Your task to perform on an android device: turn smart compose on in the gmail app Image 0: 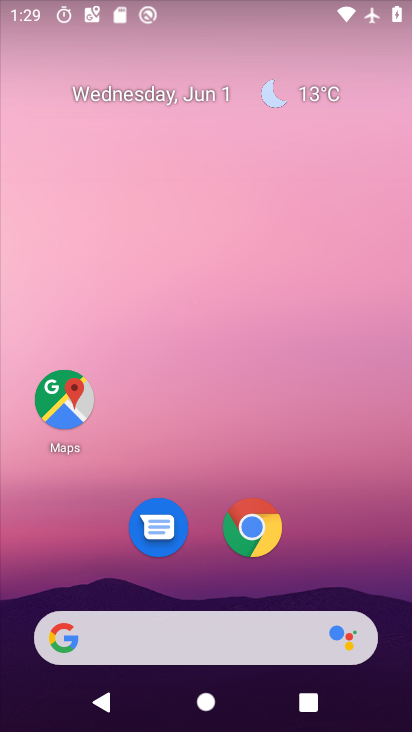
Step 0: drag from (306, 579) to (339, 7)
Your task to perform on an android device: turn smart compose on in the gmail app Image 1: 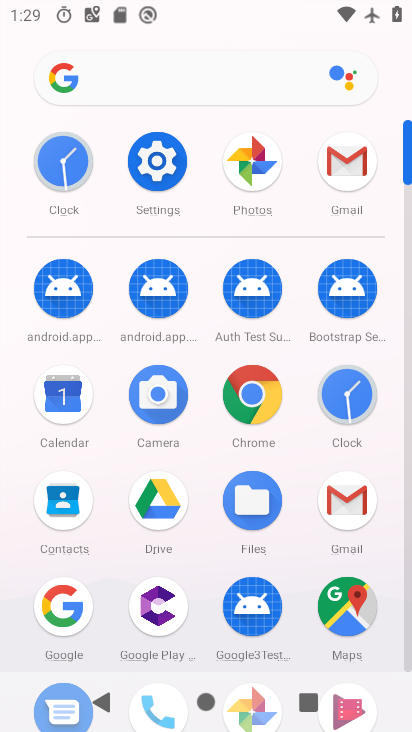
Step 1: click (345, 161)
Your task to perform on an android device: turn smart compose on in the gmail app Image 2: 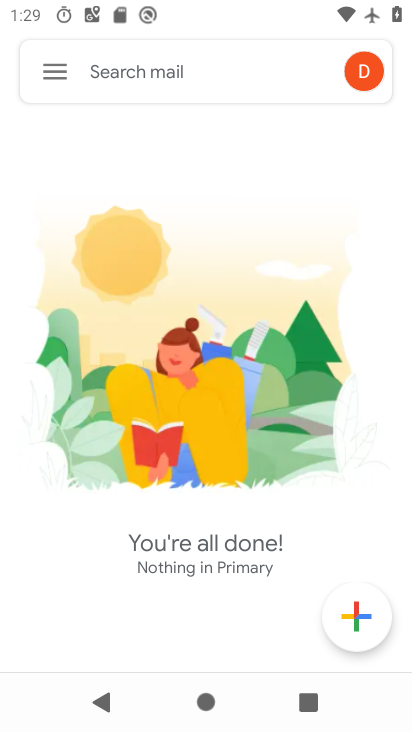
Step 2: click (54, 77)
Your task to perform on an android device: turn smart compose on in the gmail app Image 3: 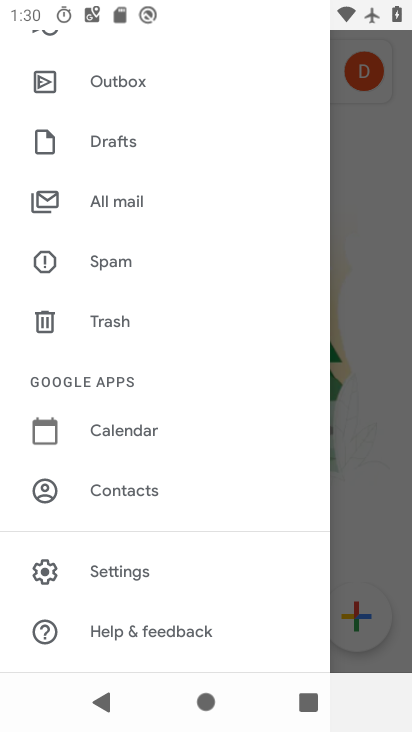
Step 3: click (129, 571)
Your task to perform on an android device: turn smart compose on in the gmail app Image 4: 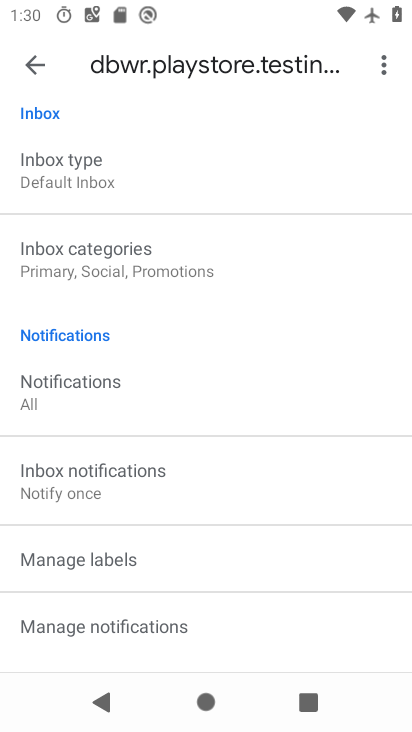
Step 4: task complete